Your task to perform on an android device: allow notifications from all sites in the chrome app Image 0: 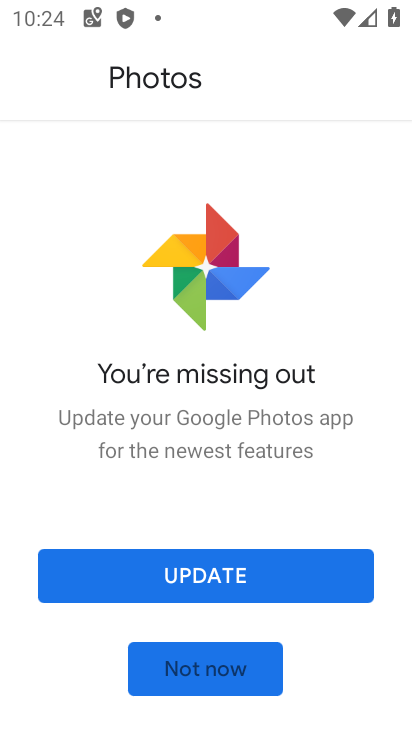
Step 0: click (212, 665)
Your task to perform on an android device: allow notifications from all sites in the chrome app Image 1: 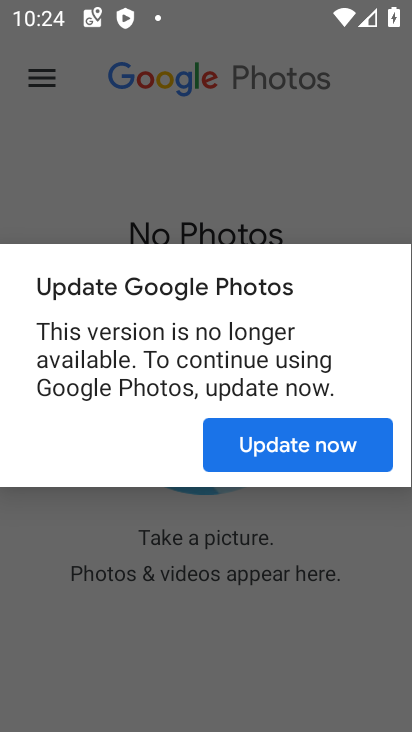
Step 1: click (362, 183)
Your task to perform on an android device: allow notifications from all sites in the chrome app Image 2: 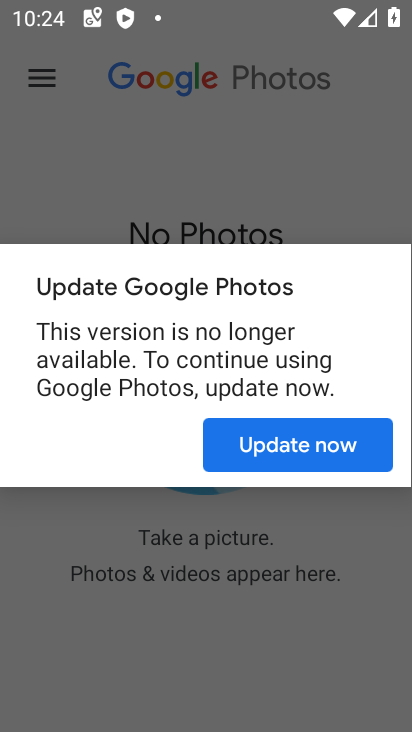
Step 2: press back button
Your task to perform on an android device: allow notifications from all sites in the chrome app Image 3: 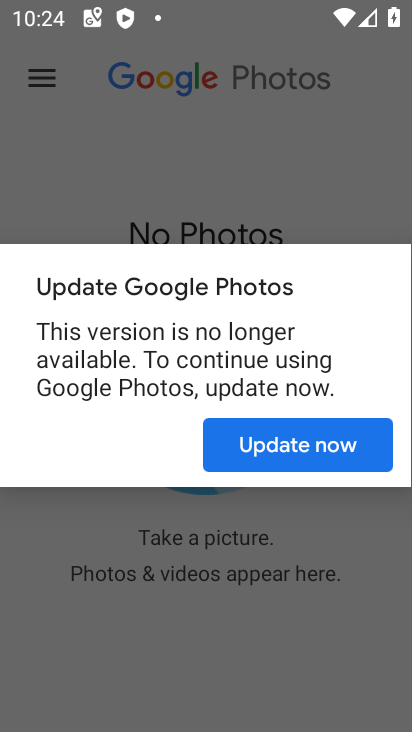
Step 3: press back button
Your task to perform on an android device: allow notifications from all sites in the chrome app Image 4: 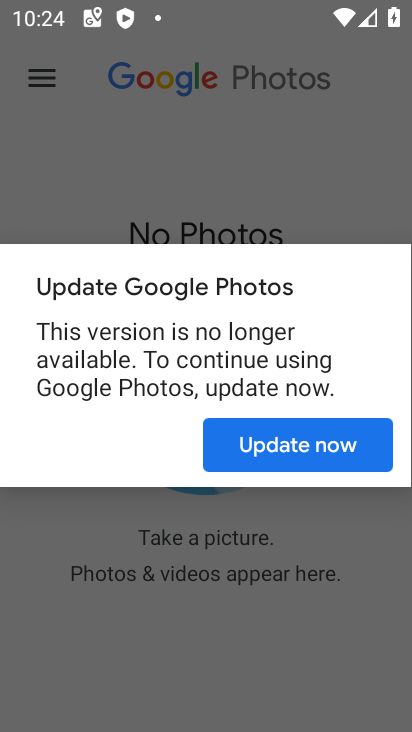
Step 4: click (237, 159)
Your task to perform on an android device: allow notifications from all sites in the chrome app Image 5: 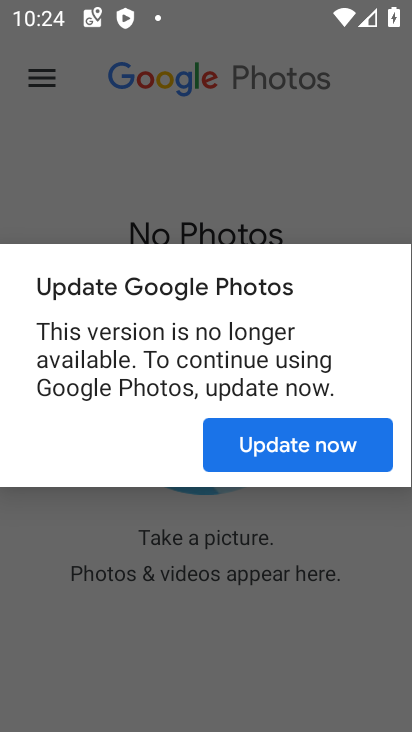
Step 5: click (238, 158)
Your task to perform on an android device: allow notifications from all sites in the chrome app Image 6: 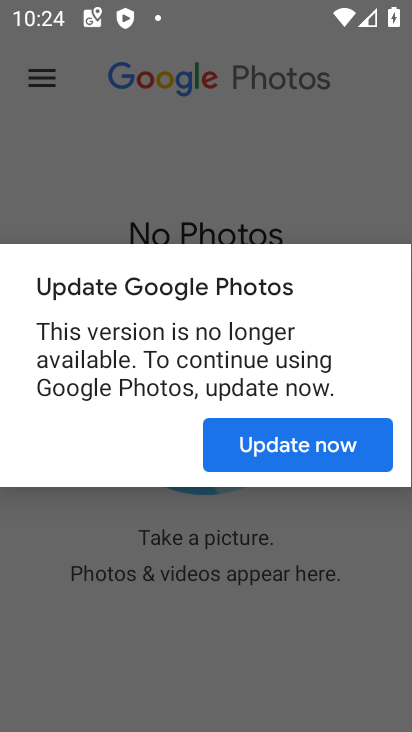
Step 6: click (246, 158)
Your task to perform on an android device: allow notifications from all sites in the chrome app Image 7: 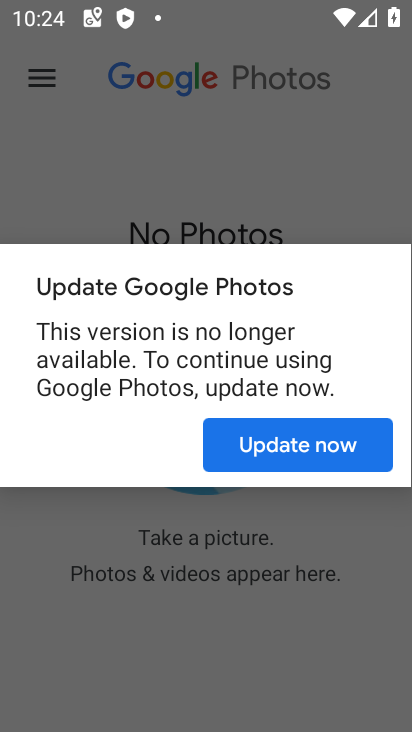
Step 7: press home button
Your task to perform on an android device: allow notifications from all sites in the chrome app Image 8: 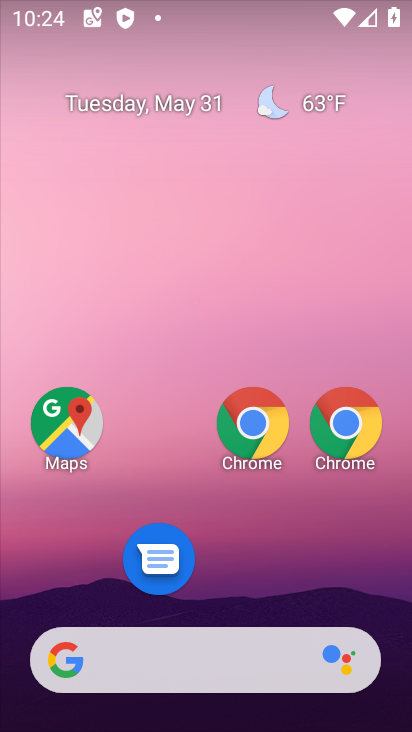
Step 8: drag from (246, 721) to (71, 209)
Your task to perform on an android device: allow notifications from all sites in the chrome app Image 9: 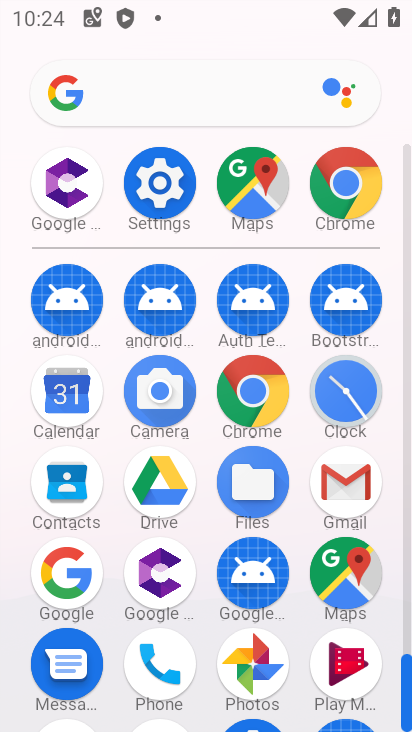
Step 9: click (258, 399)
Your task to perform on an android device: allow notifications from all sites in the chrome app Image 10: 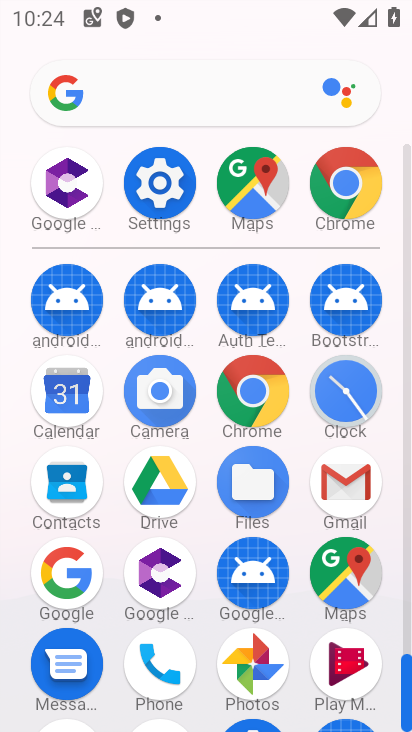
Step 10: click (257, 398)
Your task to perform on an android device: allow notifications from all sites in the chrome app Image 11: 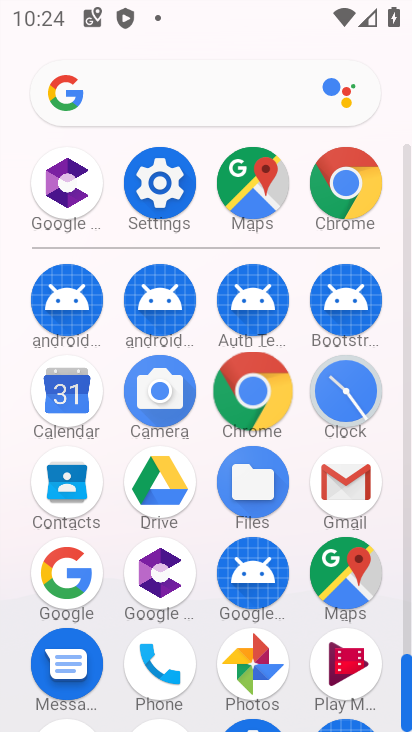
Step 11: click (262, 392)
Your task to perform on an android device: allow notifications from all sites in the chrome app Image 12: 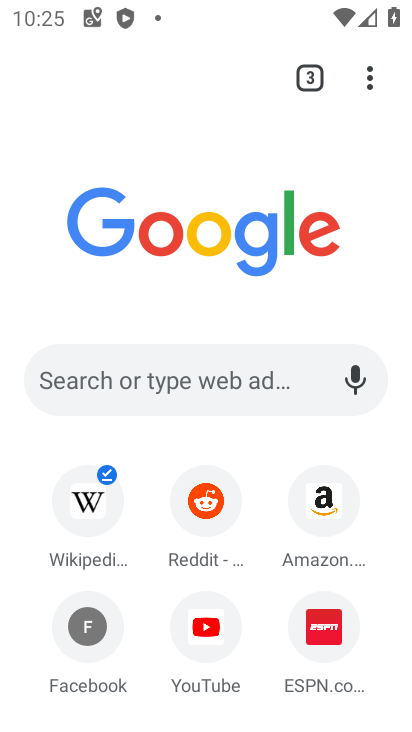
Step 12: drag from (364, 86) to (99, 614)
Your task to perform on an android device: allow notifications from all sites in the chrome app Image 13: 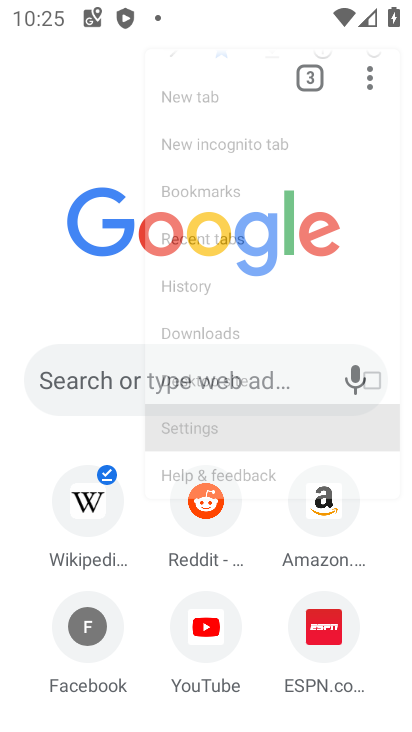
Step 13: click (99, 614)
Your task to perform on an android device: allow notifications from all sites in the chrome app Image 14: 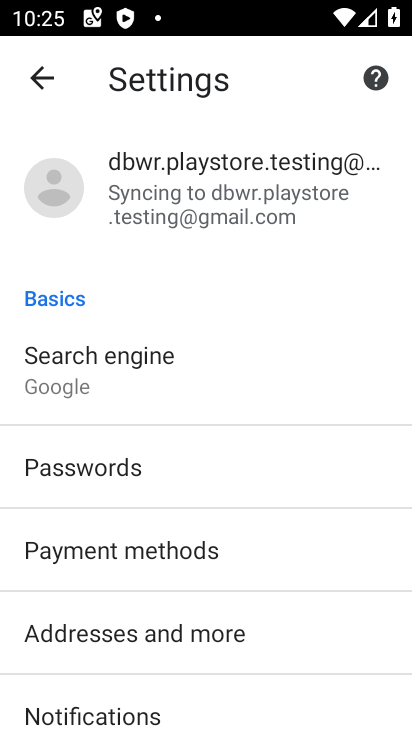
Step 14: drag from (99, 561) to (118, 230)
Your task to perform on an android device: allow notifications from all sites in the chrome app Image 15: 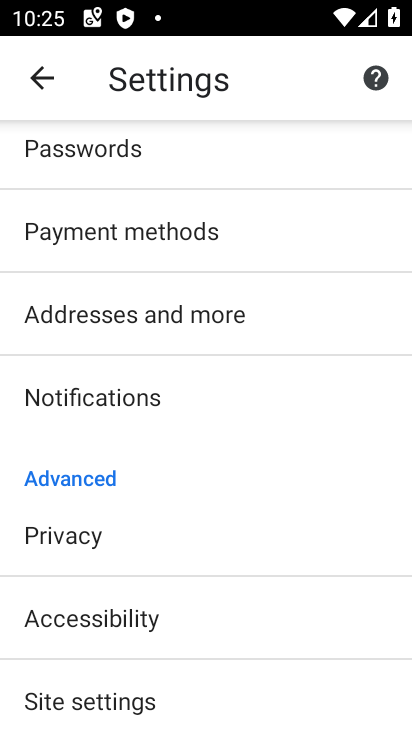
Step 15: drag from (145, 539) to (209, 28)
Your task to perform on an android device: allow notifications from all sites in the chrome app Image 16: 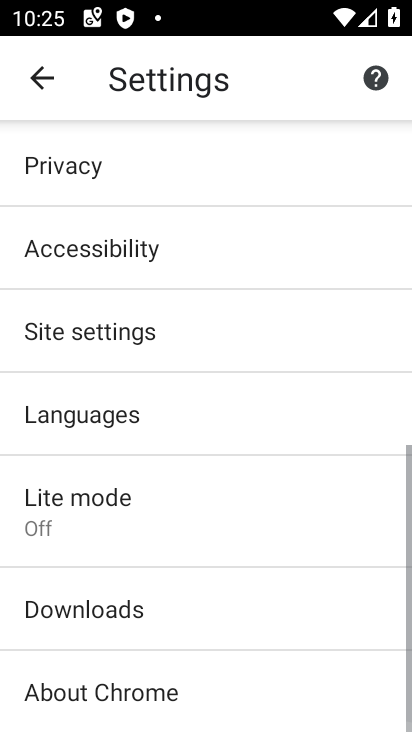
Step 16: drag from (246, 410) to (270, 160)
Your task to perform on an android device: allow notifications from all sites in the chrome app Image 17: 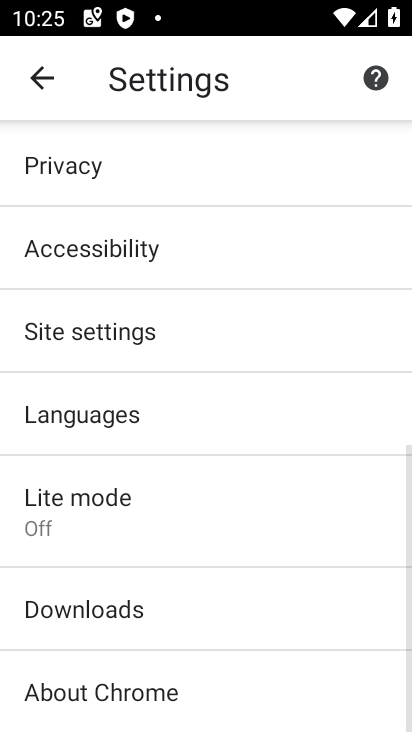
Step 17: click (91, 334)
Your task to perform on an android device: allow notifications from all sites in the chrome app Image 18: 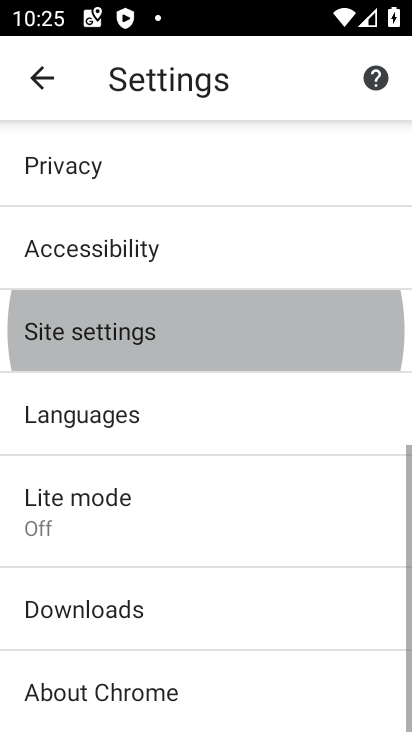
Step 18: click (92, 337)
Your task to perform on an android device: allow notifications from all sites in the chrome app Image 19: 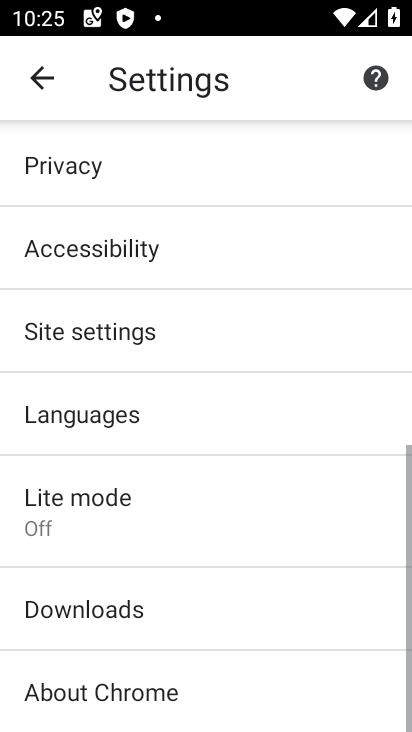
Step 19: click (90, 341)
Your task to perform on an android device: allow notifications from all sites in the chrome app Image 20: 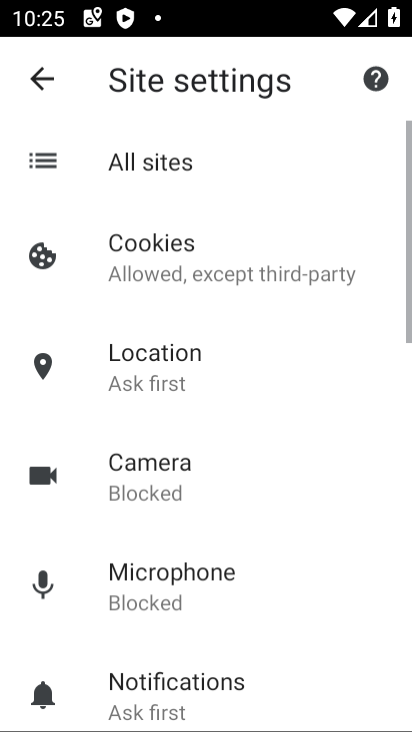
Step 20: click (90, 341)
Your task to perform on an android device: allow notifications from all sites in the chrome app Image 21: 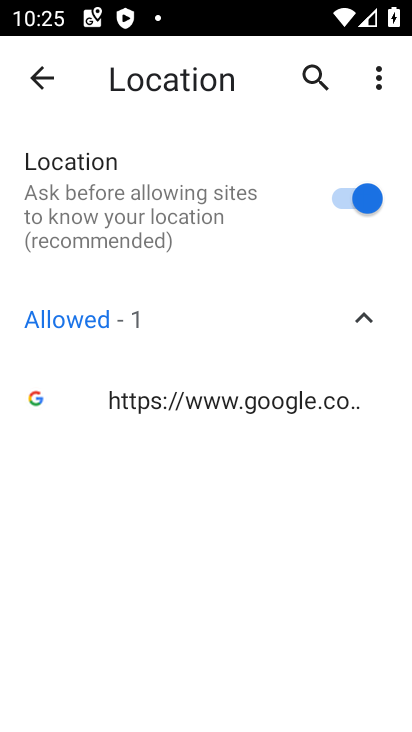
Step 21: click (47, 72)
Your task to perform on an android device: allow notifications from all sites in the chrome app Image 22: 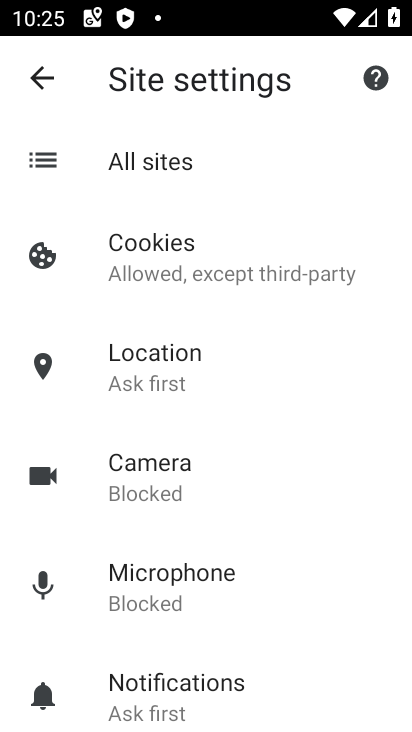
Step 22: click (153, 164)
Your task to perform on an android device: allow notifications from all sites in the chrome app Image 23: 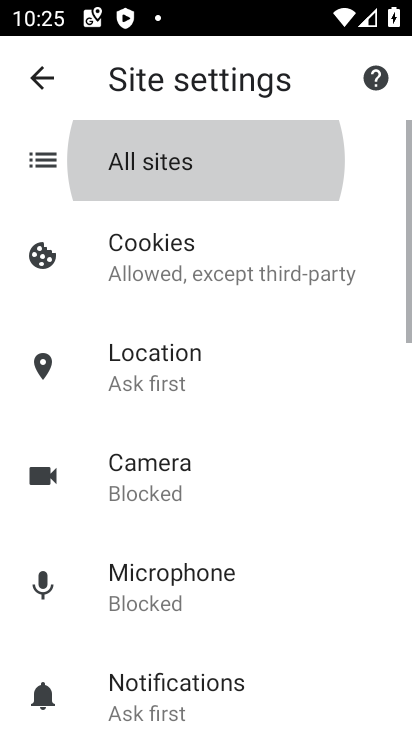
Step 23: click (153, 164)
Your task to perform on an android device: allow notifications from all sites in the chrome app Image 24: 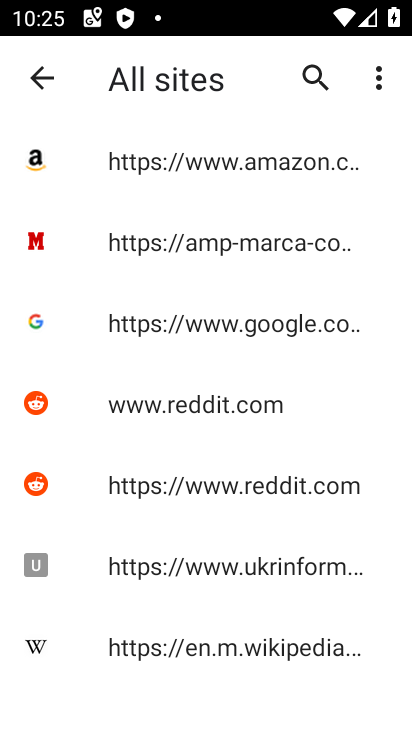
Step 24: click (153, 164)
Your task to perform on an android device: allow notifications from all sites in the chrome app Image 25: 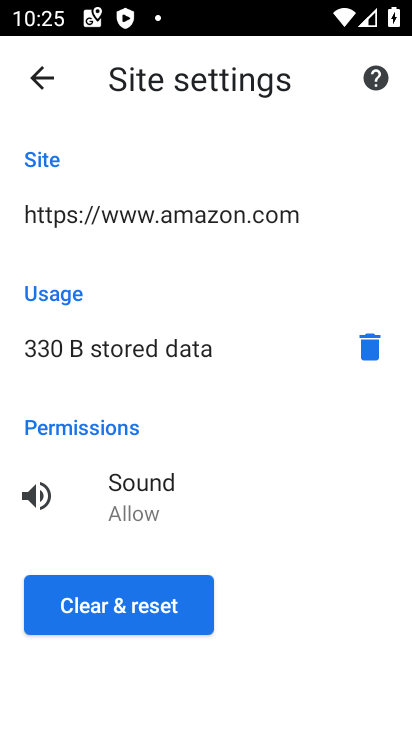
Step 25: task complete